Your task to perform on an android device: Open the phone app and click the voicemail tab. Image 0: 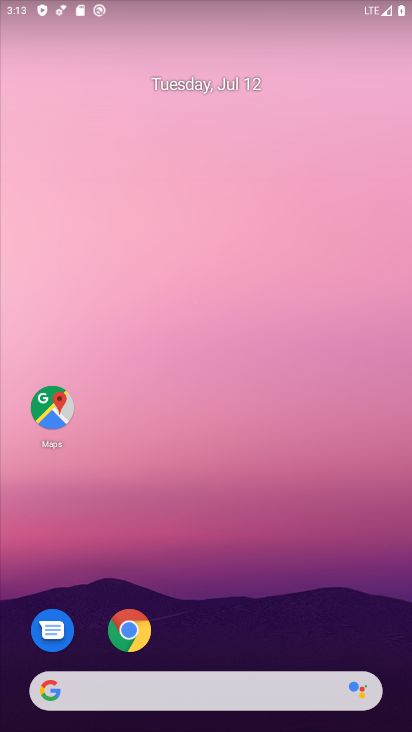
Step 0: drag from (164, 612) to (184, 67)
Your task to perform on an android device: Open the phone app and click the voicemail tab. Image 1: 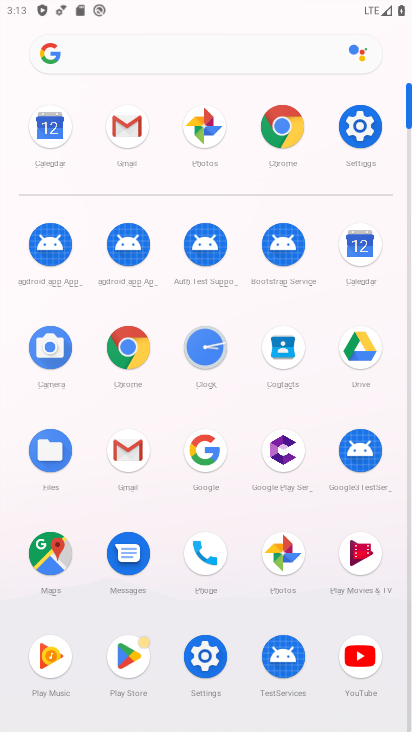
Step 1: click (203, 571)
Your task to perform on an android device: Open the phone app and click the voicemail tab. Image 2: 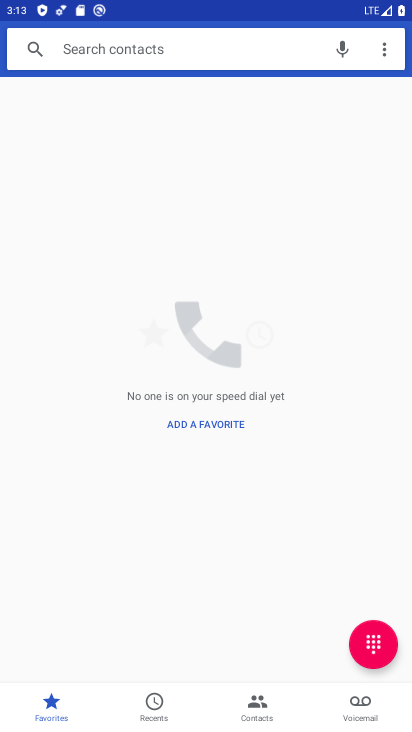
Step 2: click (362, 700)
Your task to perform on an android device: Open the phone app and click the voicemail tab. Image 3: 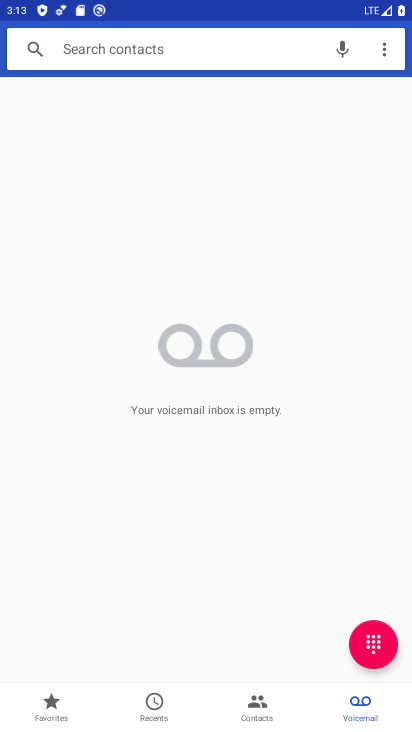
Step 3: task complete